Your task to perform on an android device: Go to Google maps Image 0: 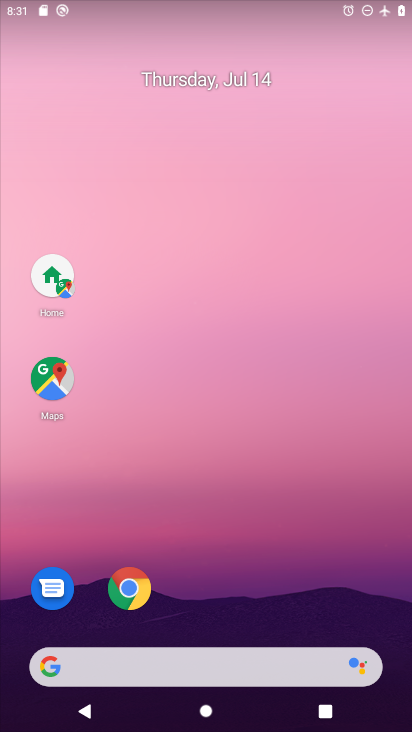
Step 0: click (47, 369)
Your task to perform on an android device: Go to Google maps Image 1: 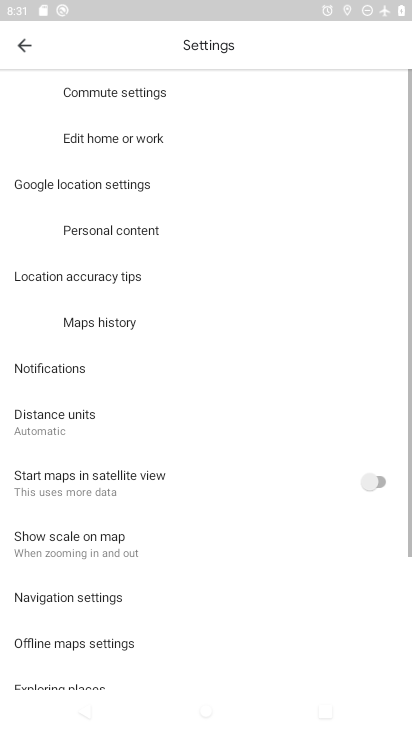
Step 1: click (5, 38)
Your task to perform on an android device: Go to Google maps Image 2: 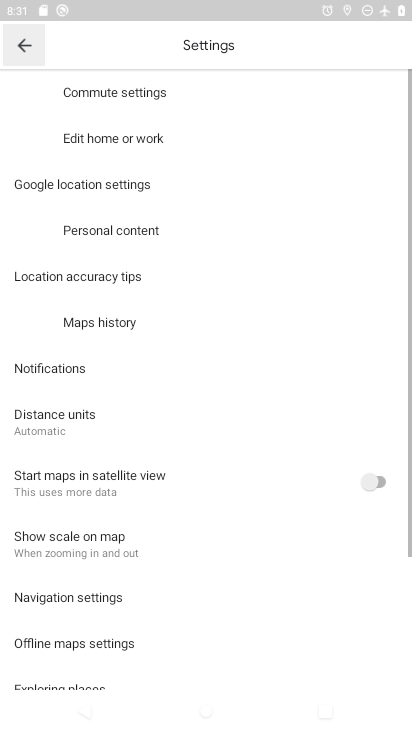
Step 2: click (25, 50)
Your task to perform on an android device: Go to Google maps Image 3: 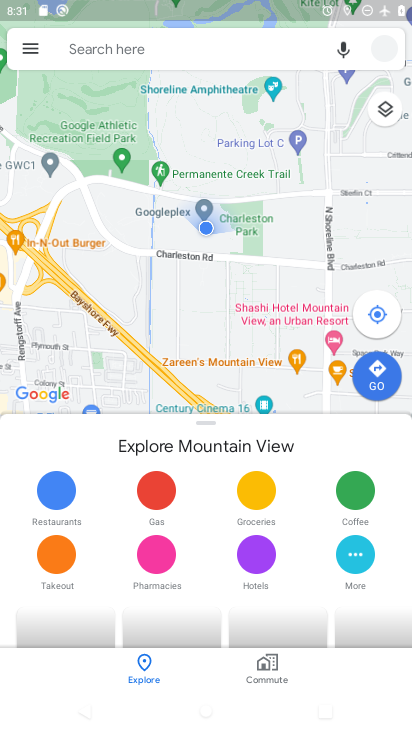
Step 3: click (13, 42)
Your task to perform on an android device: Go to Google maps Image 4: 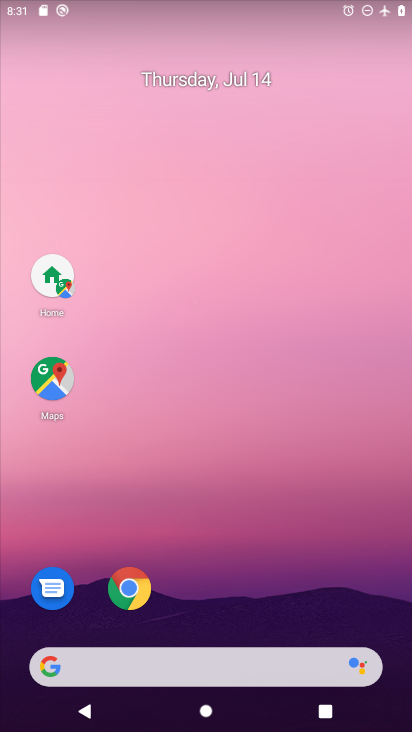
Step 4: click (62, 387)
Your task to perform on an android device: Go to Google maps Image 5: 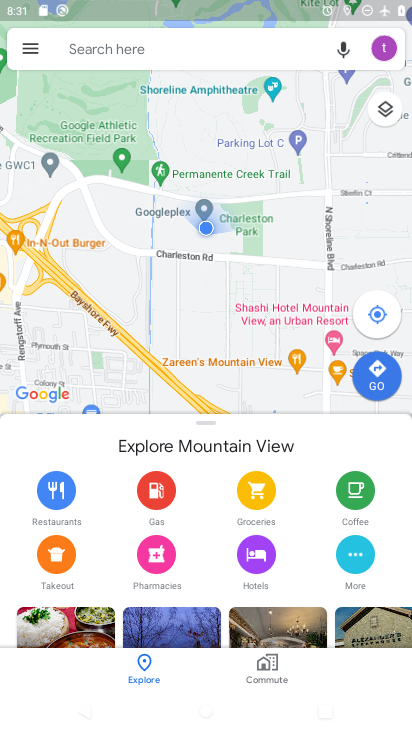
Step 5: task complete